Your task to perform on an android device: Go to Wikipedia Image 0: 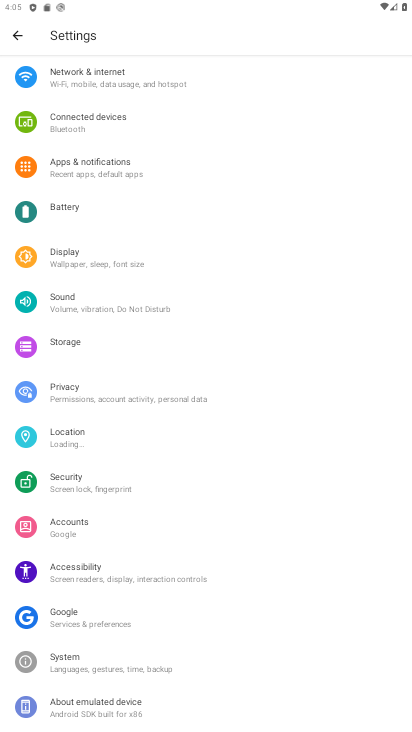
Step 0: click (163, 285)
Your task to perform on an android device: Go to Wikipedia Image 1: 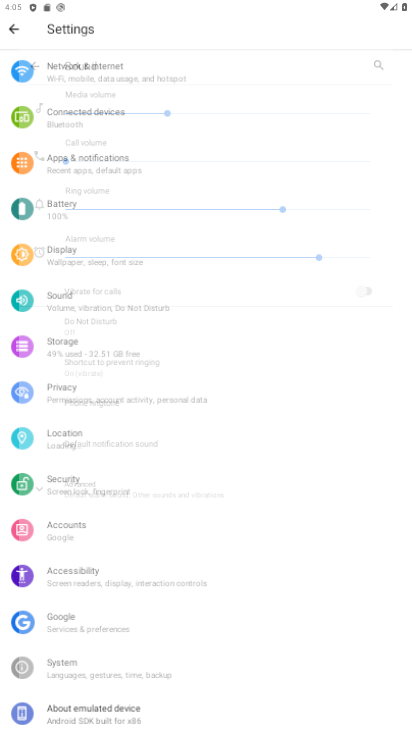
Step 1: press home button
Your task to perform on an android device: Go to Wikipedia Image 2: 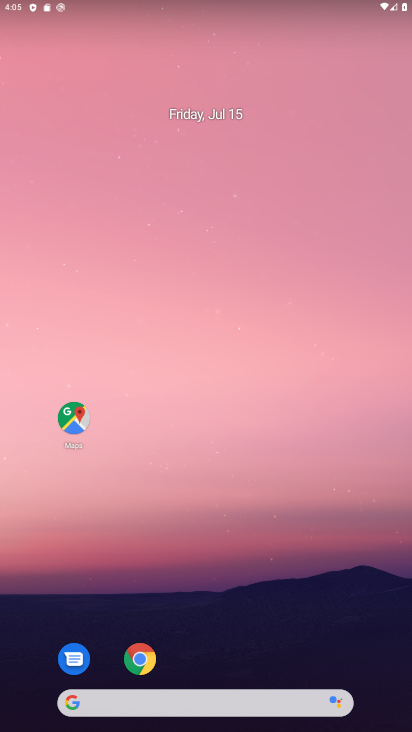
Step 2: drag from (182, 716) to (254, 153)
Your task to perform on an android device: Go to Wikipedia Image 3: 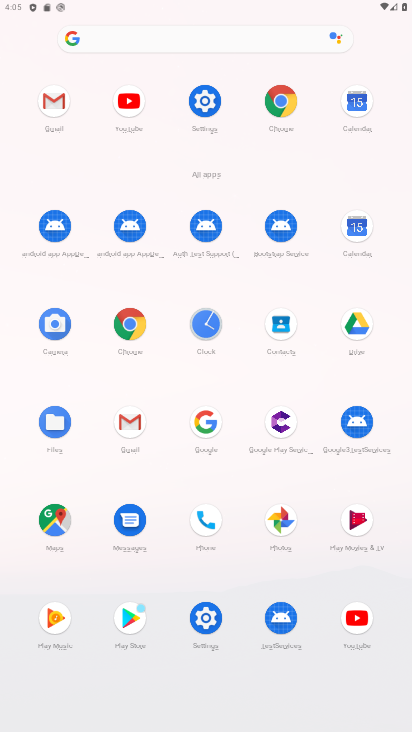
Step 3: click (137, 324)
Your task to perform on an android device: Go to Wikipedia Image 4: 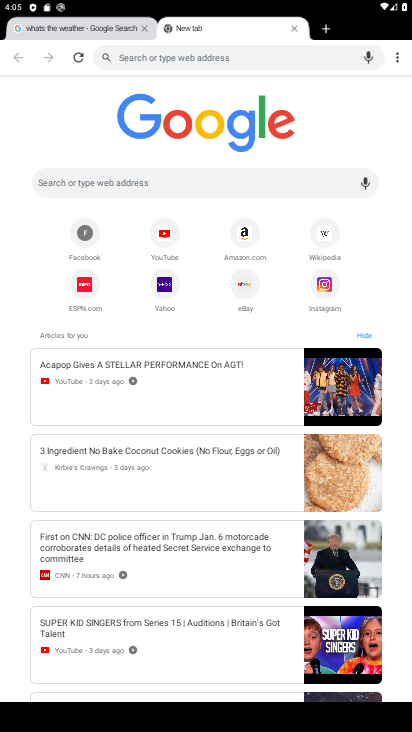
Step 4: click (329, 236)
Your task to perform on an android device: Go to Wikipedia Image 5: 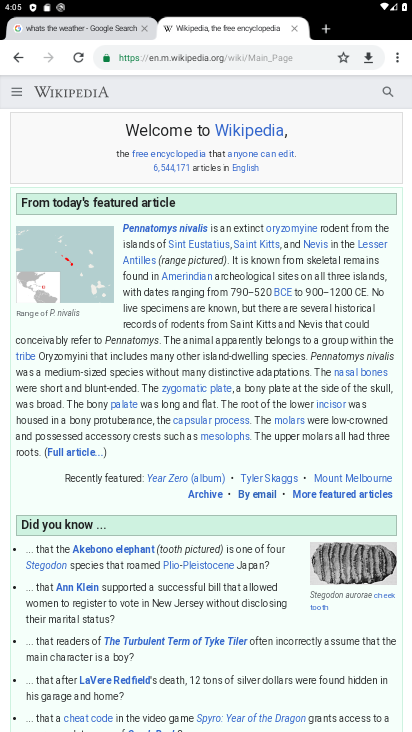
Step 5: task complete